Your task to perform on an android device: star an email in the gmail app Image 0: 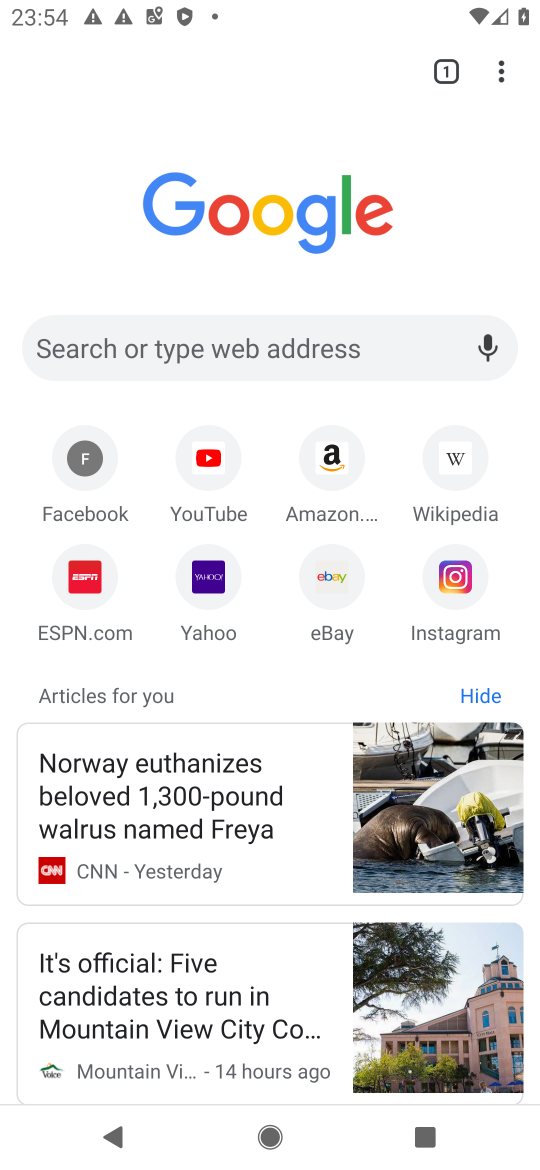
Step 0: press home button
Your task to perform on an android device: star an email in the gmail app Image 1: 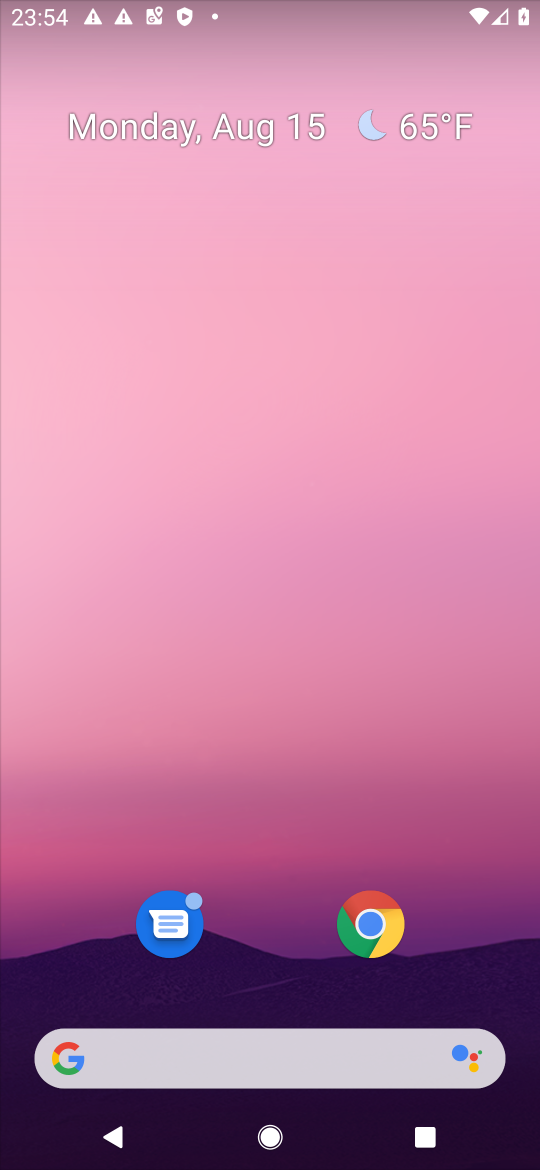
Step 1: drag from (301, 839) to (285, 271)
Your task to perform on an android device: star an email in the gmail app Image 2: 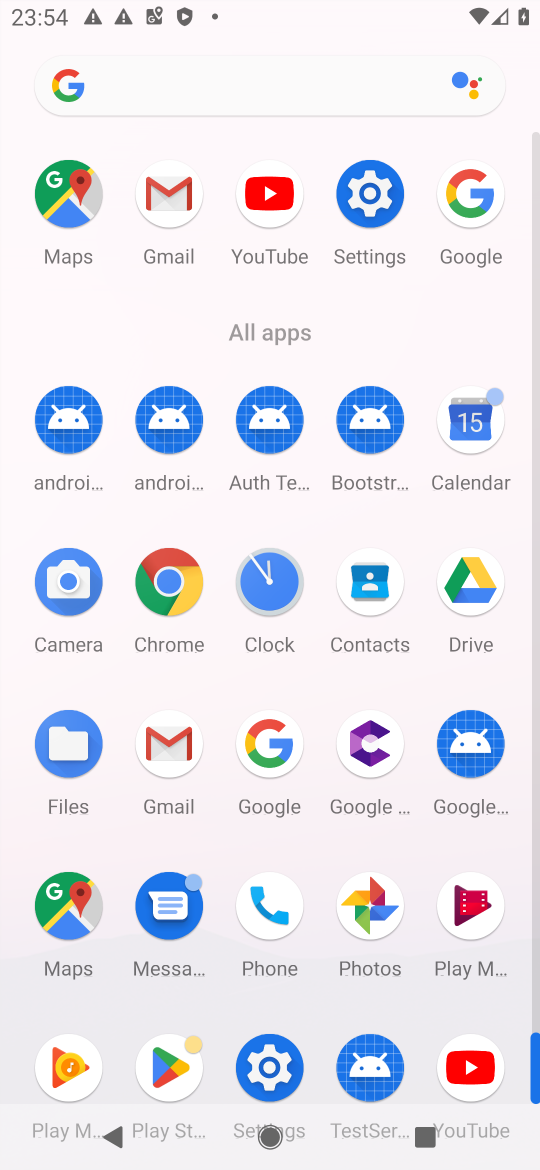
Step 2: click (175, 747)
Your task to perform on an android device: star an email in the gmail app Image 3: 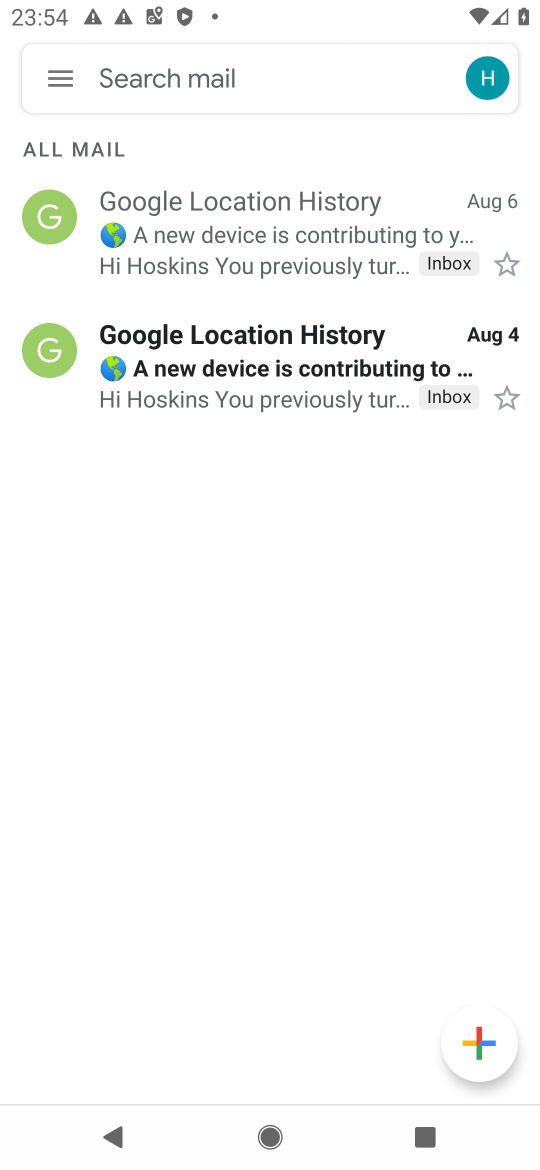
Step 3: click (506, 398)
Your task to perform on an android device: star an email in the gmail app Image 4: 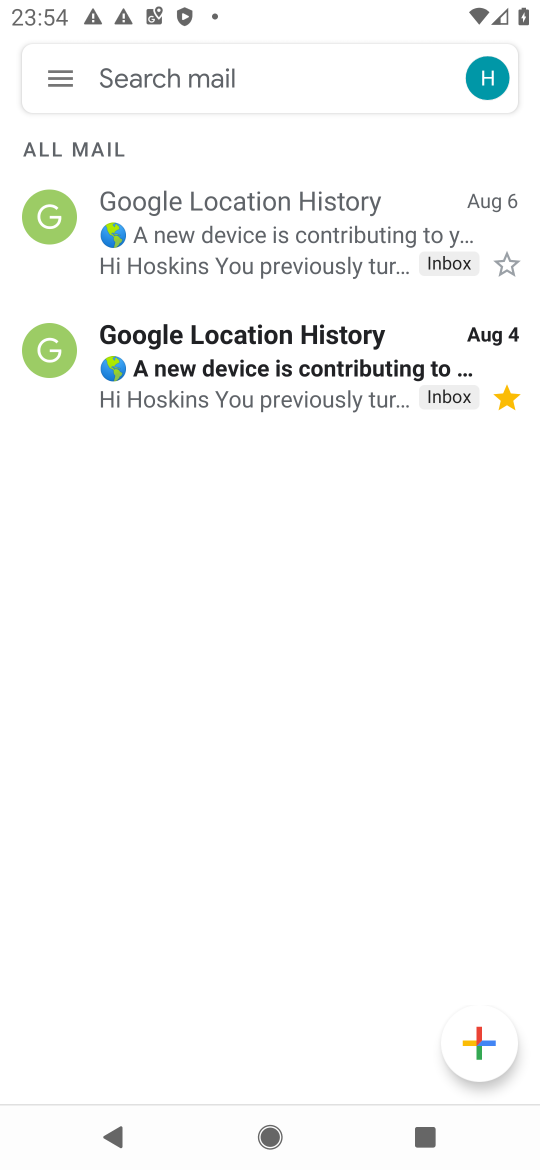
Step 4: task complete